Your task to perform on an android device: Show the shopping cart on newegg. Add "usb-a" to the cart on newegg, then select checkout. Image 0: 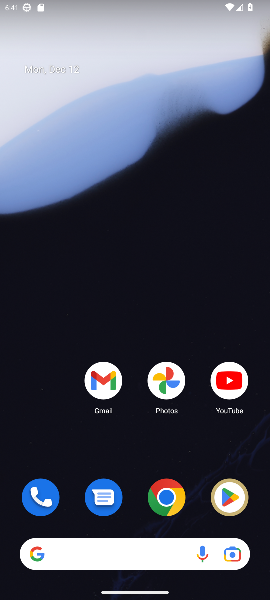
Step 0: drag from (47, 381) to (85, 52)
Your task to perform on an android device: Show the shopping cart on newegg. Add "usb-a" to the cart on newegg, then select checkout. Image 1: 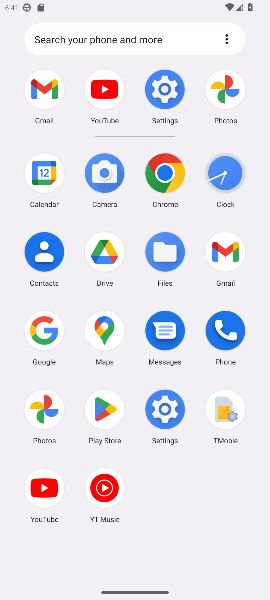
Step 1: click (44, 320)
Your task to perform on an android device: Show the shopping cart on newegg. Add "usb-a" to the cart on newegg, then select checkout. Image 2: 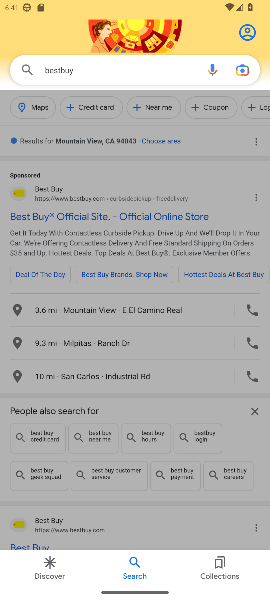
Step 2: click (122, 77)
Your task to perform on an android device: Show the shopping cart on newegg. Add "usb-a" to the cart on newegg, then select checkout. Image 3: 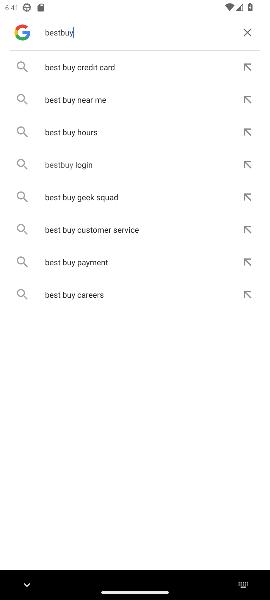
Step 3: click (246, 31)
Your task to perform on an android device: Show the shopping cart on newegg. Add "usb-a" to the cart on newegg, then select checkout. Image 4: 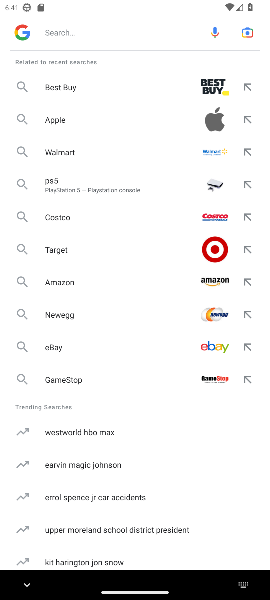
Step 4: type "newegg"
Your task to perform on an android device: Show the shopping cart on newegg. Add "usb-a" to the cart on newegg, then select checkout. Image 5: 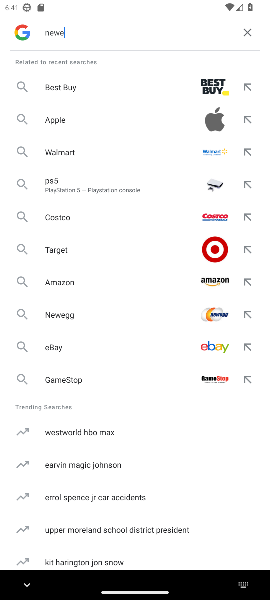
Step 5: press enter
Your task to perform on an android device: Show the shopping cart on newegg. Add "usb-a" to the cart on newegg, then select checkout. Image 6: 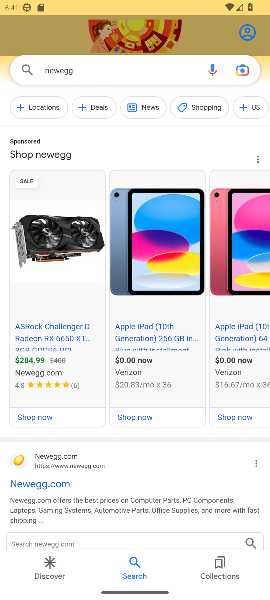
Step 6: click (46, 486)
Your task to perform on an android device: Show the shopping cart on newegg. Add "usb-a" to the cart on newegg, then select checkout. Image 7: 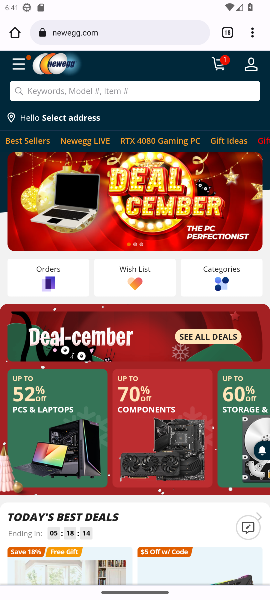
Step 7: click (221, 60)
Your task to perform on an android device: Show the shopping cart on newegg. Add "usb-a" to the cart on newegg, then select checkout. Image 8: 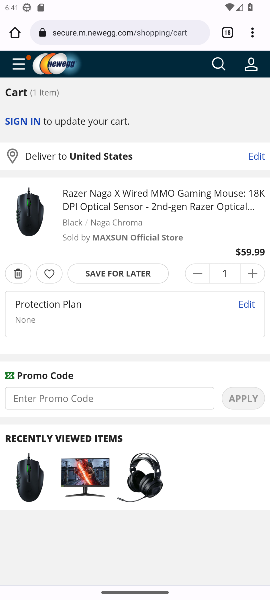
Step 8: click (218, 66)
Your task to perform on an android device: Show the shopping cart on newegg. Add "usb-a" to the cart on newegg, then select checkout. Image 9: 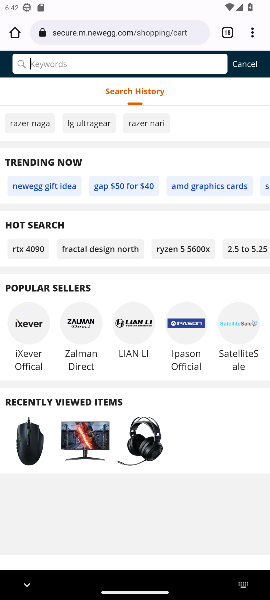
Step 9: type "usb-a"
Your task to perform on an android device: Show the shopping cart on newegg. Add "usb-a" to the cart on newegg, then select checkout. Image 10: 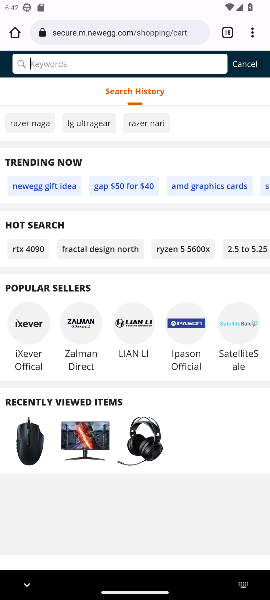
Step 10: press enter
Your task to perform on an android device: Show the shopping cart on newegg. Add "usb-a" to the cart on newegg, then select checkout. Image 11: 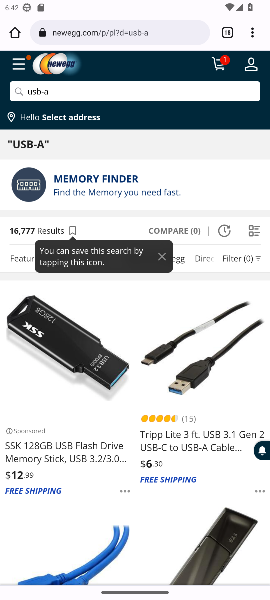
Step 11: task complete